Your task to perform on an android device: Go to Google maps Image 0: 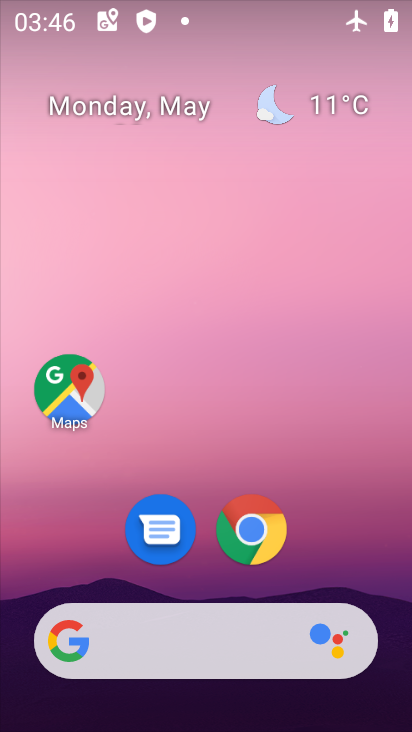
Step 0: click (71, 399)
Your task to perform on an android device: Go to Google maps Image 1: 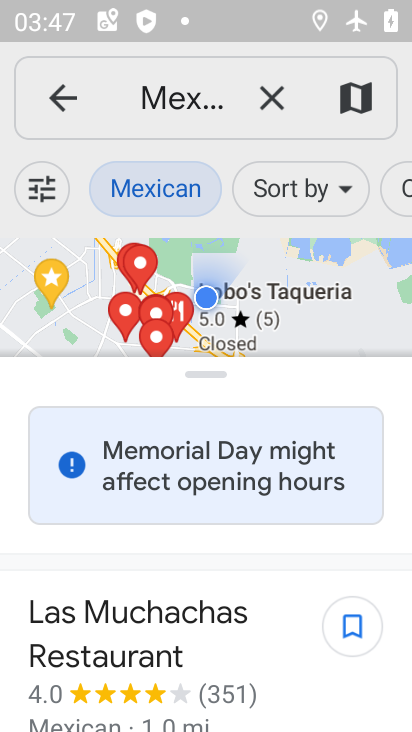
Step 1: task complete